Your task to perform on an android device: star an email in the gmail app Image 0: 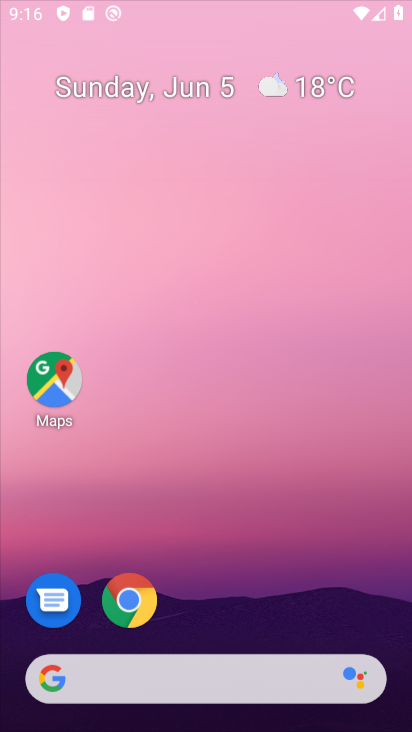
Step 0: click (335, 81)
Your task to perform on an android device: star an email in the gmail app Image 1: 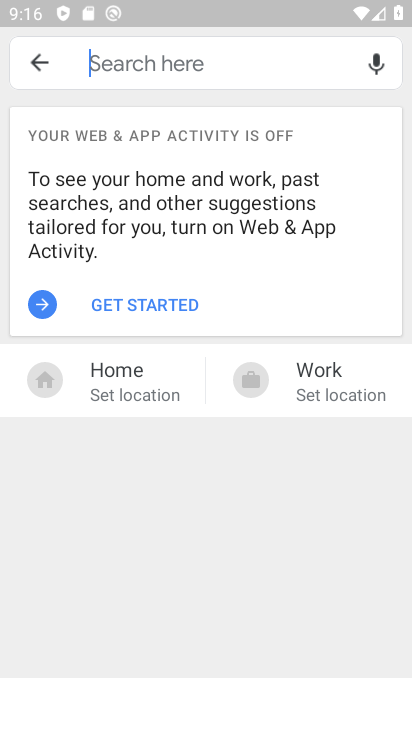
Step 1: press home button
Your task to perform on an android device: star an email in the gmail app Image 2: 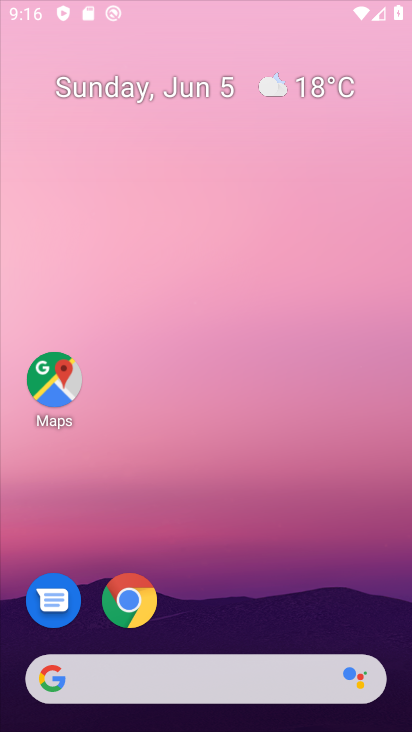
Step 2: press home button
Your task to perform on an android device: star an email in the gmail app Image 3: 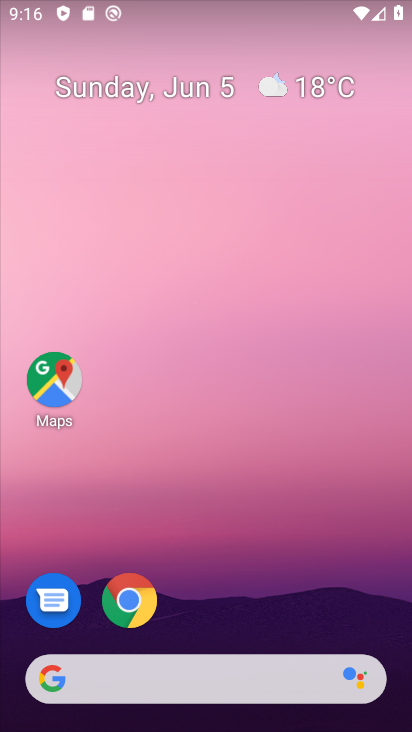
Step 3: press home button
Your task to perform on an android device: star an email in the gmail app Image 4: 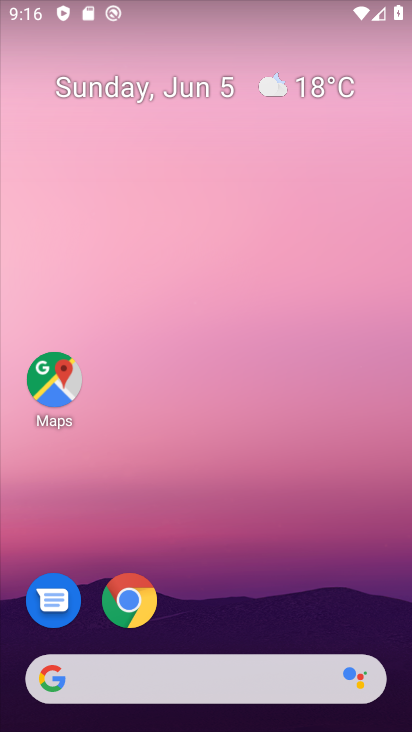
Step 4: click (291, 137)
Your task to perform on an android device: star an email in the gmail app Image 5: 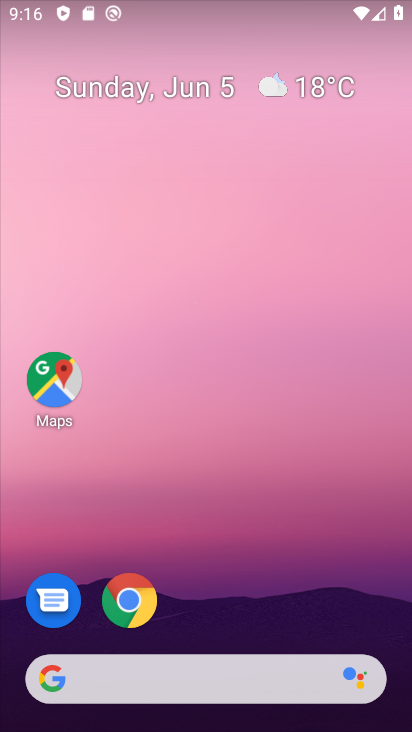
Step 5: drag from (262, 536) to (273, 127)
Your task to perform on an android device: star an email in the gmail app Image 6: 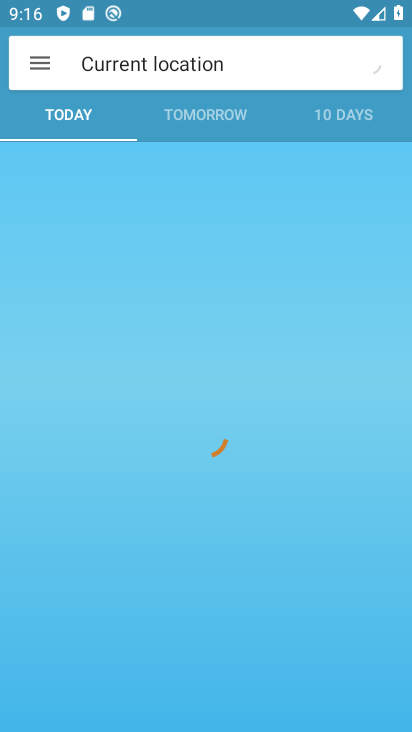
Step 6: press home button
Your task to perform on an android device: star an email in the gmail app Image 7: 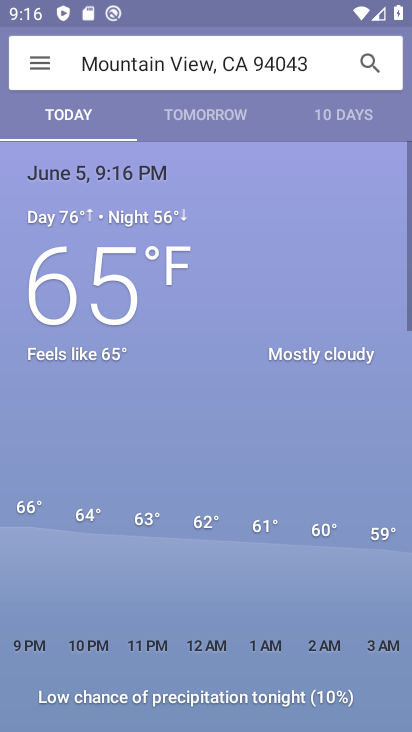
Step 7: press home button
Your task to perform on an android device: star an email in the gmail app Image 8: 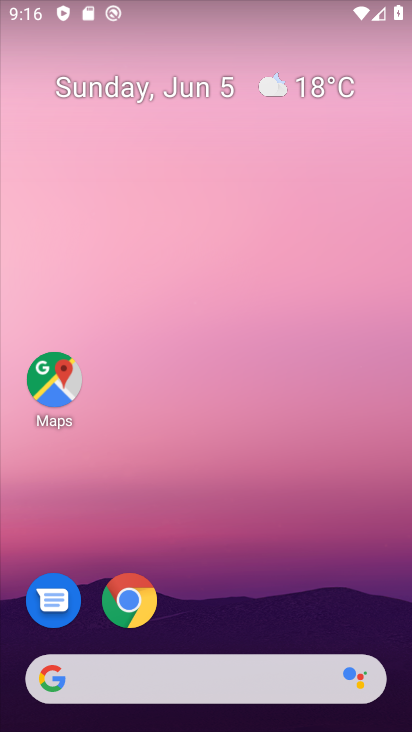
Step 8: drag from (292, 616) to (272, 338)
Your task to perform on an android device: star an email in the gmail app Image 9: 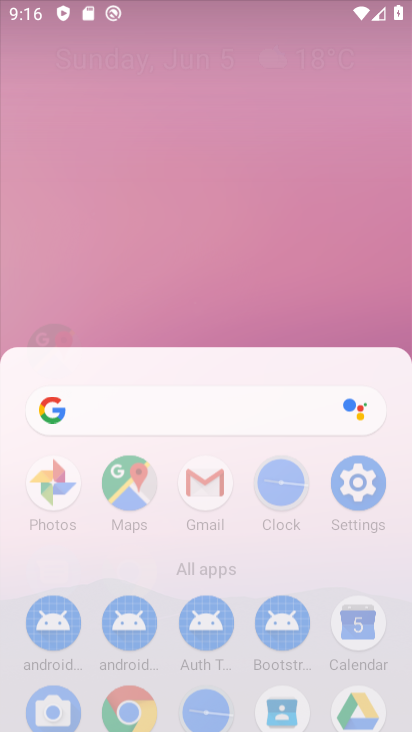
Step 9: click (274, 166)
Your task to perform on an android device: star an email in the gmail app Image 10: 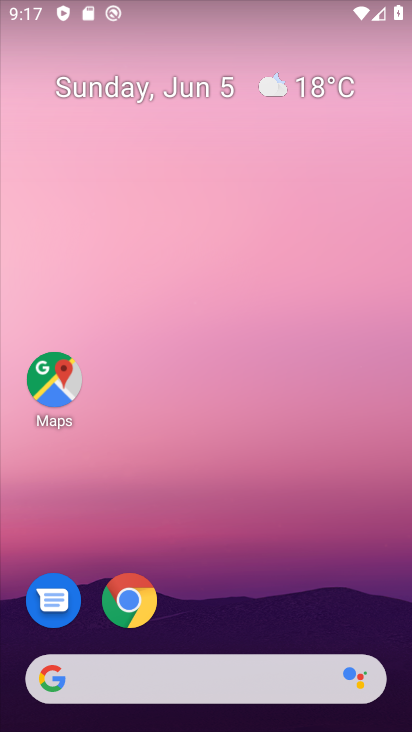
Step 10: drag from (301, 602) to (309, 155)
Your task to perform on an android device: star an email in the gmail app Image 11: 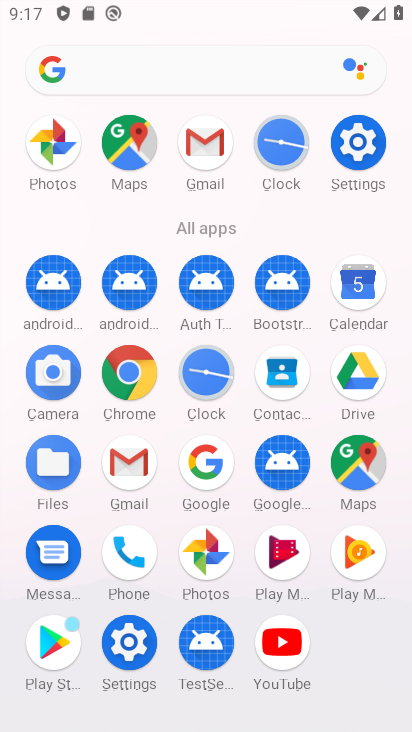
Step 11: click (211, 156)
Your task to perform on an android device: star an email in the gmail app Image 12: 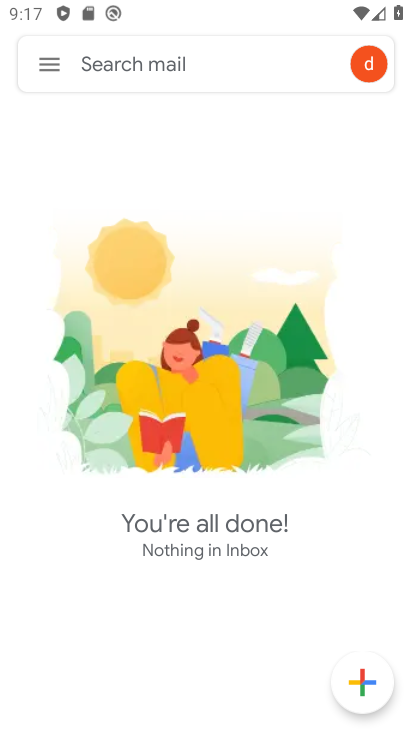
Step 12: click (49, 69)
Your task to perform on an android device: star an email in the gmail app Image 13: 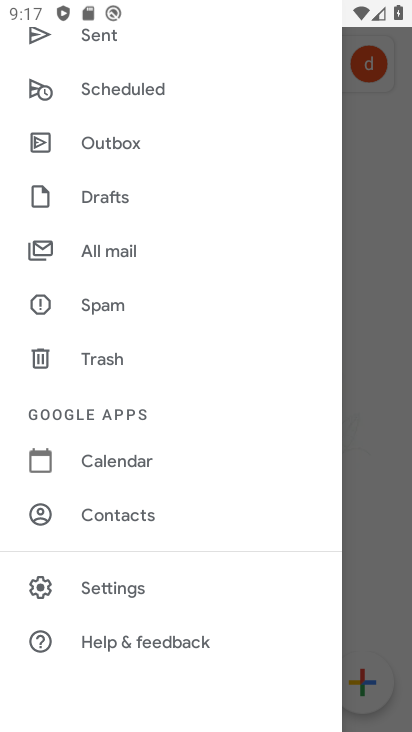
Step 13: click (109, 252)
Your task to perform on an android device: star an email in the gmail app Image 14: 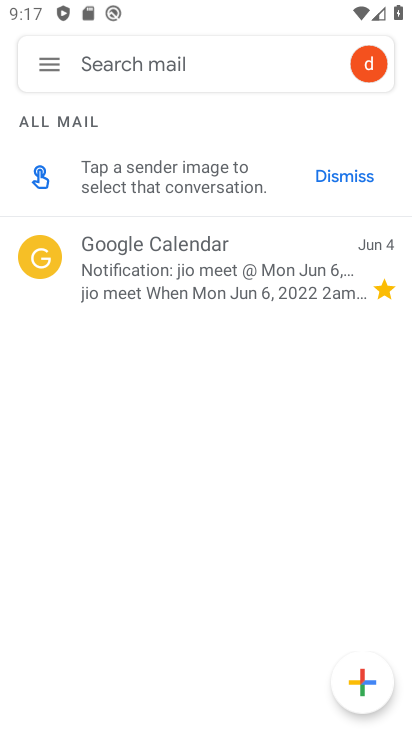
Step 14: task complete